Your task to perform on an android device: change the clock display to digital Image 0: 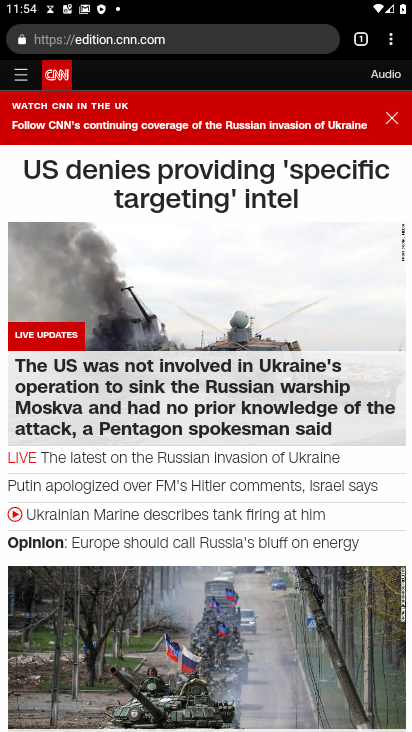
Step 0: press back button
Your task to perform on an android device: change the clock display to digital Image 1: 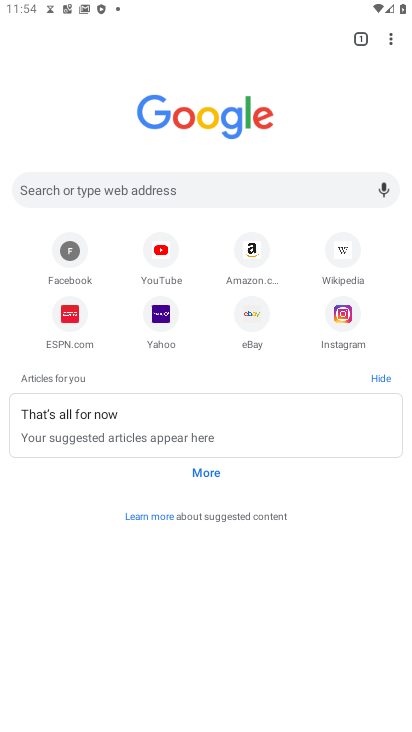
Step 1: press home button
Your task to perform on an android device: change the clock display to digital Image 2: 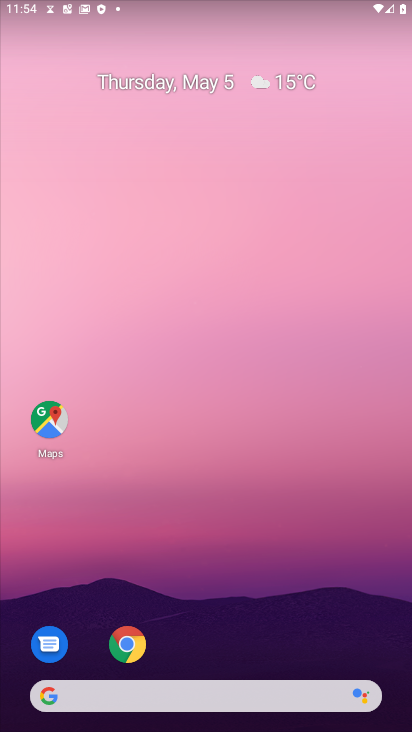
Step 2: drag from (270, 567) to (170, 0)
Your task to perform on an android device: change the clock display to digital Image 3: 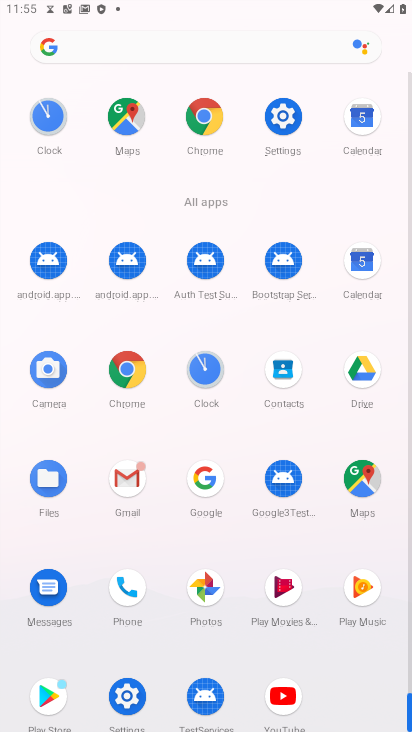
Step 3: drag from (13, 560) to (20, 317)
Your task to perform on an android device: change the clock display to digital Image 4: 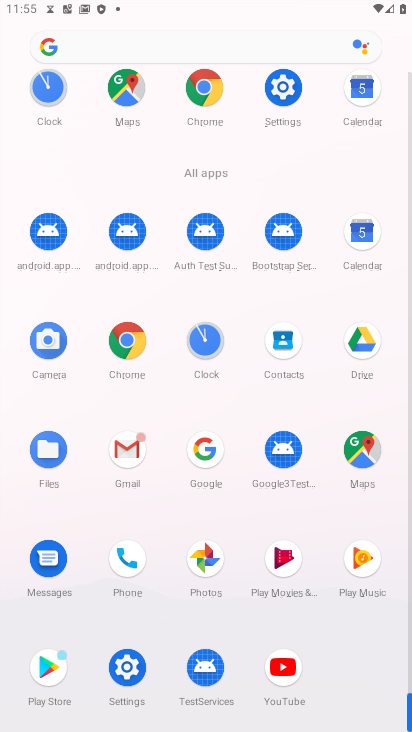
Step 4: drag from (11, 523) to (4, 266)
Your task to perform on an android device: change the clock display to digital Image 5: 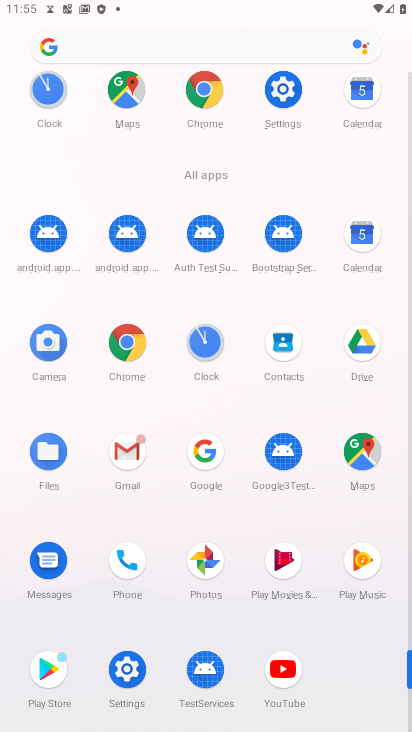
Step 5: click (200, 343)
Your task to perform on an android device: change the clock display to digital Image 6: 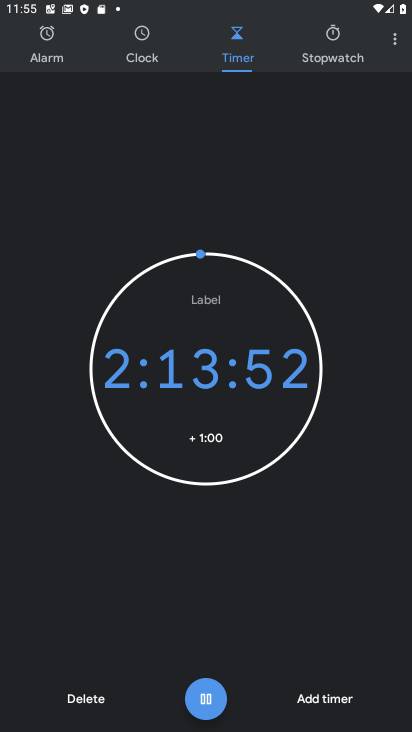
Step 6: click (395, 42)
Your task to perform on an android device: change the clock display to digital Image 7: 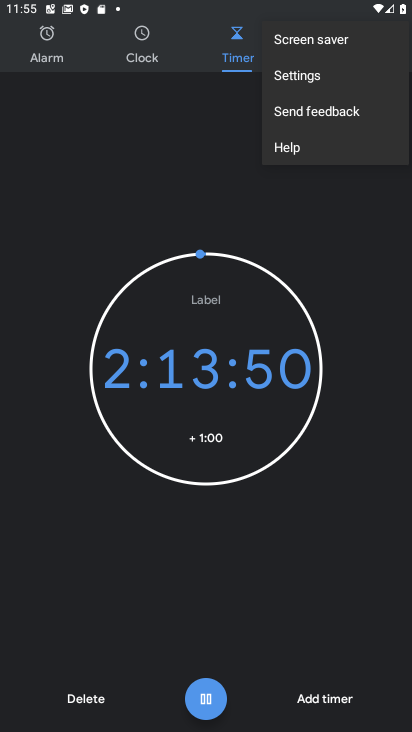
Step 7: click (335, 69)
Your task to perform on an android device: change the clock display to digital Image 8: 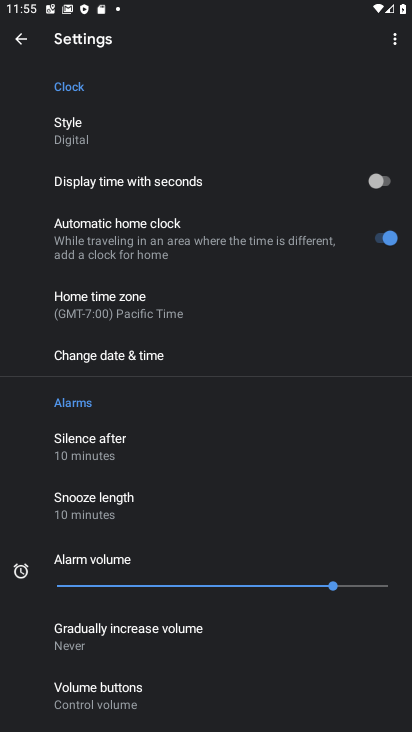
Step 8: task complete